Your task to perform on an android device: Go to Amazon Image 0: 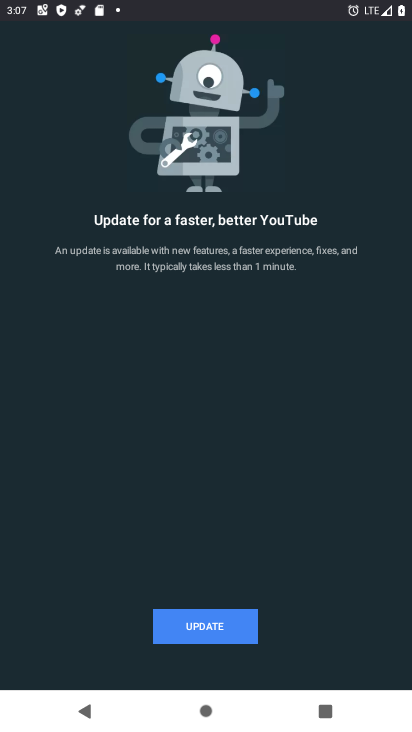
Step 0: press home button
Your task to perform on an android device: Go to Amazon Image 1: 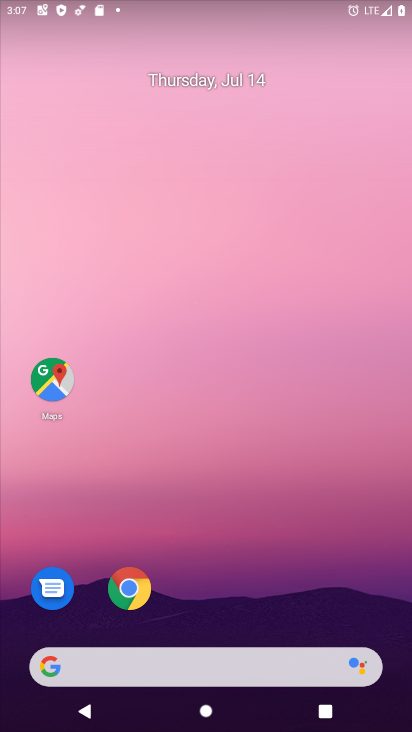
Step 1: drag from (274, 559) to (279, 307)
Your task to perform on an android device: Go to Amazon Image 2: 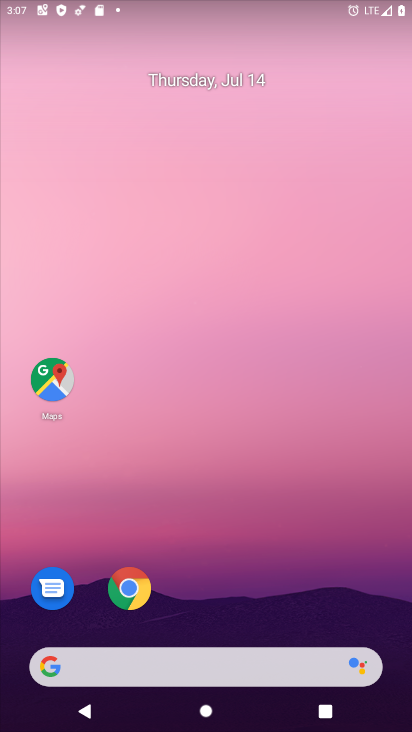
Step 2: click (146, 588)
Your task to perform on an android device: Go to Amazon Image 3: 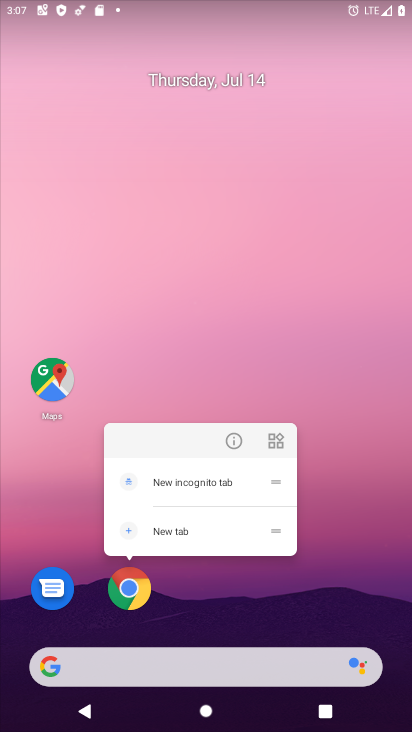
Step 3: click (134, 591)
Your task to perform on an android device: Go to Amazon Image 4: 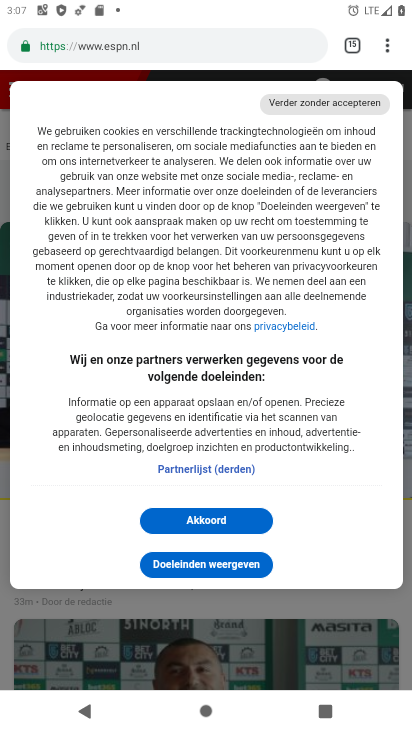
Step 4: click (388, 42)
Your task to perform on an android device: Go to Amazon Image 5: 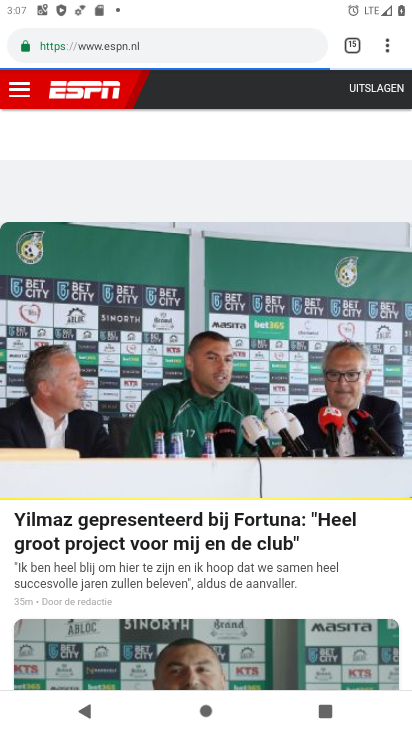
Step 5: click (393, 38)
Your task to perform on an android device: Go to Amazon Image 6: 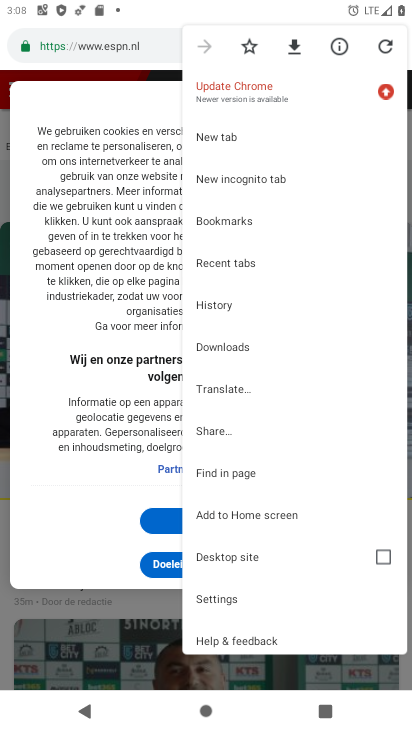
Step 6: click (235, 138)
Your task to perform on an android device: Go to Amazon Image 7: 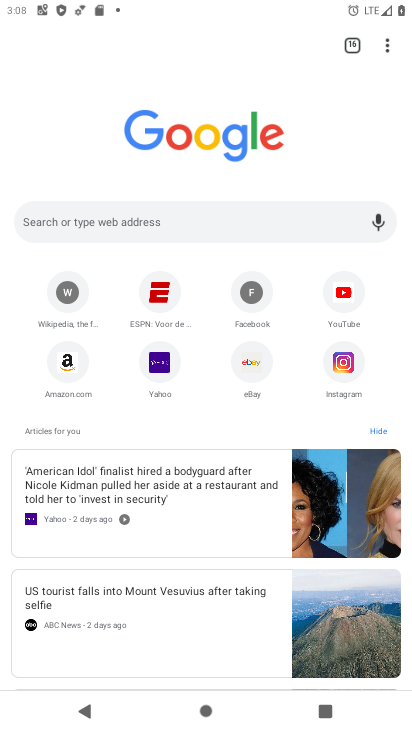
Step 7: click (76, 367)
Your task to perform on an android device: Go to Amazon Image 8: 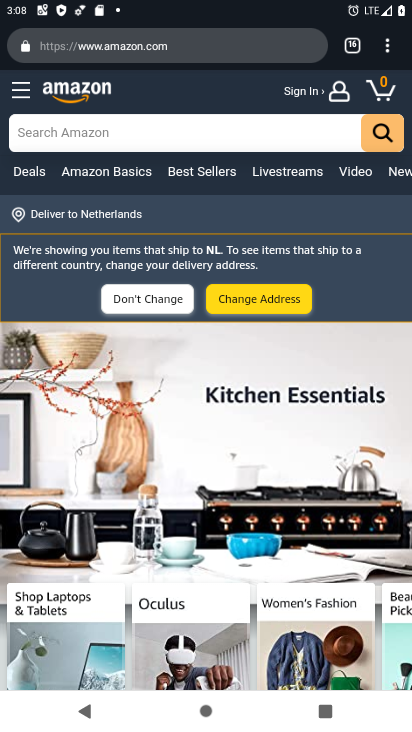
Step 8: task complete